Your task to perform on an android device: search for starred emails in the gmail app Image 0: 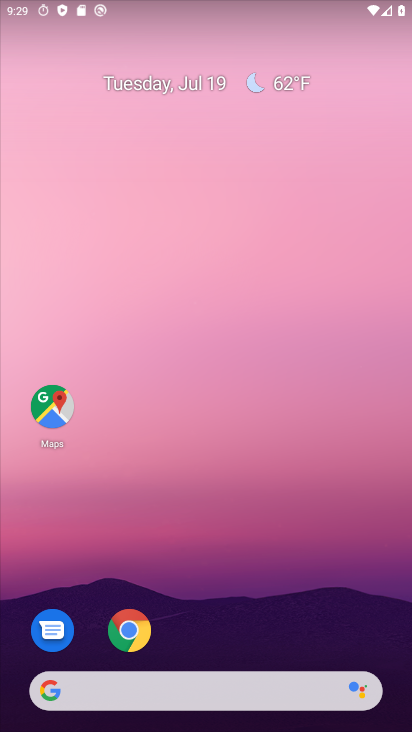
Step 0: drag from (239, 671) to (202, 412)
Your task to perform on an android device: search for starred emails in the gmail app Image 1: 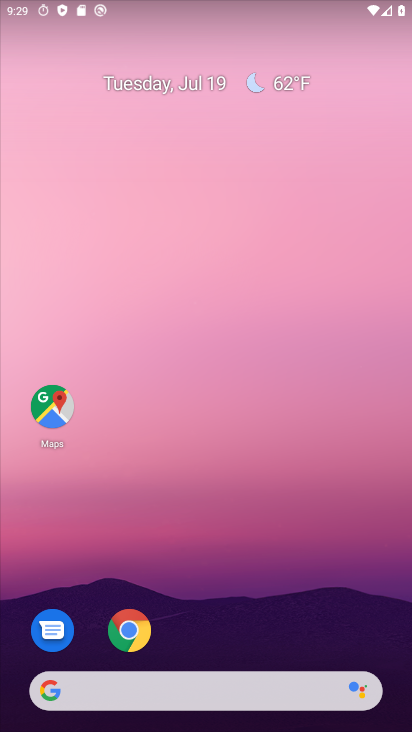
Step 1: drag from (201, 672) to (181, 311)
Your task to perform on an android device: search for starred emails in the gmail app Image 2: 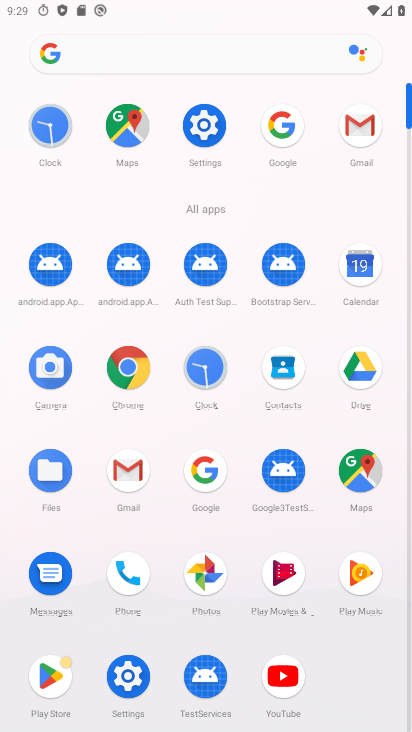
Step 2: click (131, 470)
Your task to perform on an android device: search for starred emails in the gmail app Image 3: 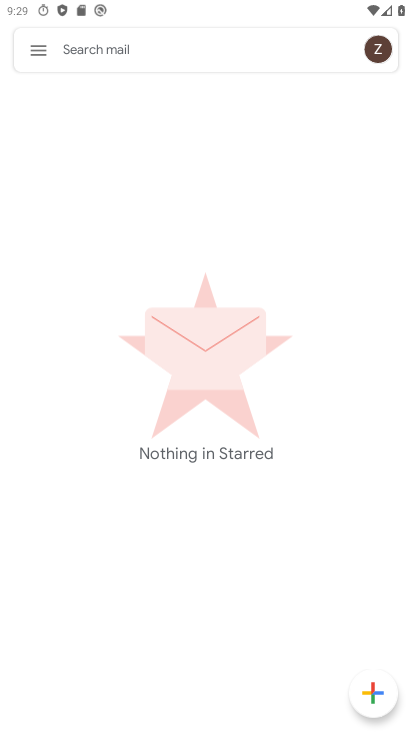
Step 3: task complete